Your task to perform on an android device: Open internet settings Image 0: 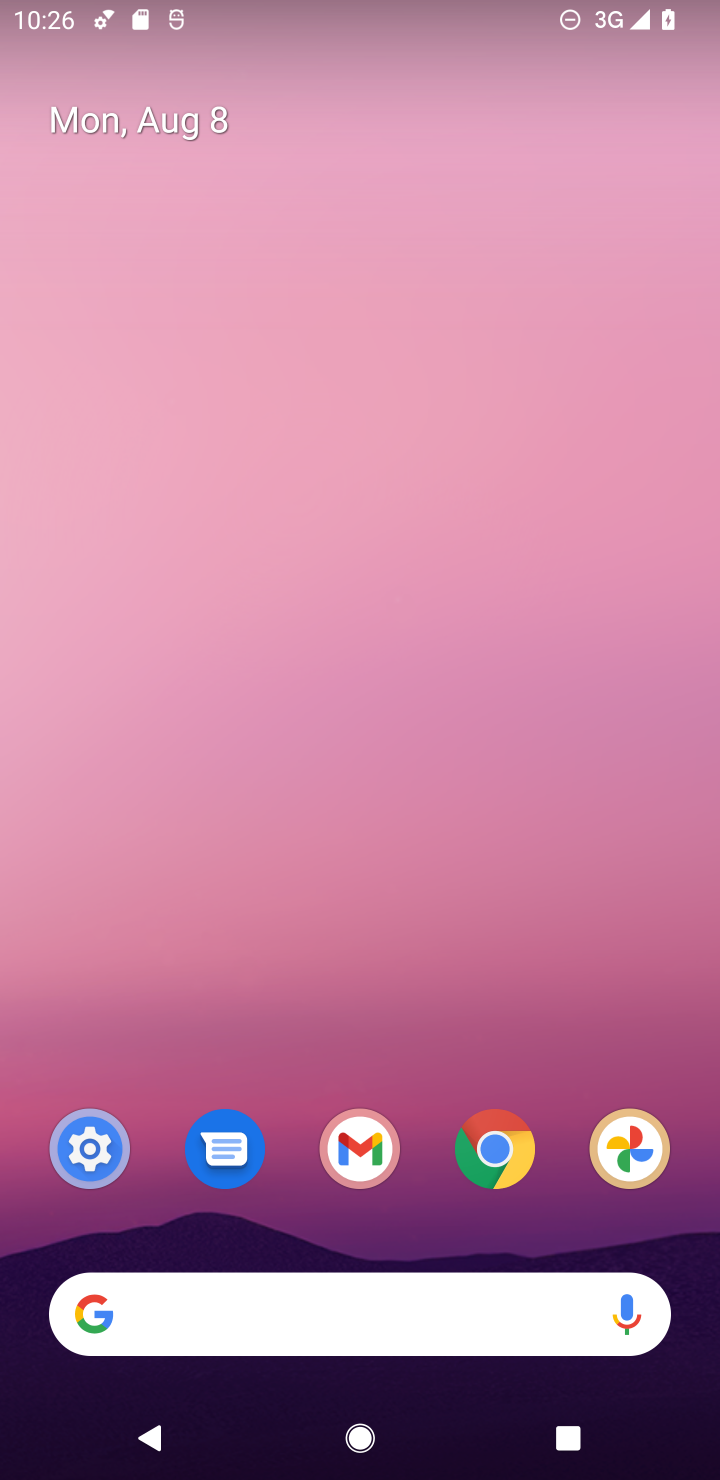
Step 0: drag from (339, 1277) to (323, 623)
Your task to perform on an android device: Open internet settings Image 1: 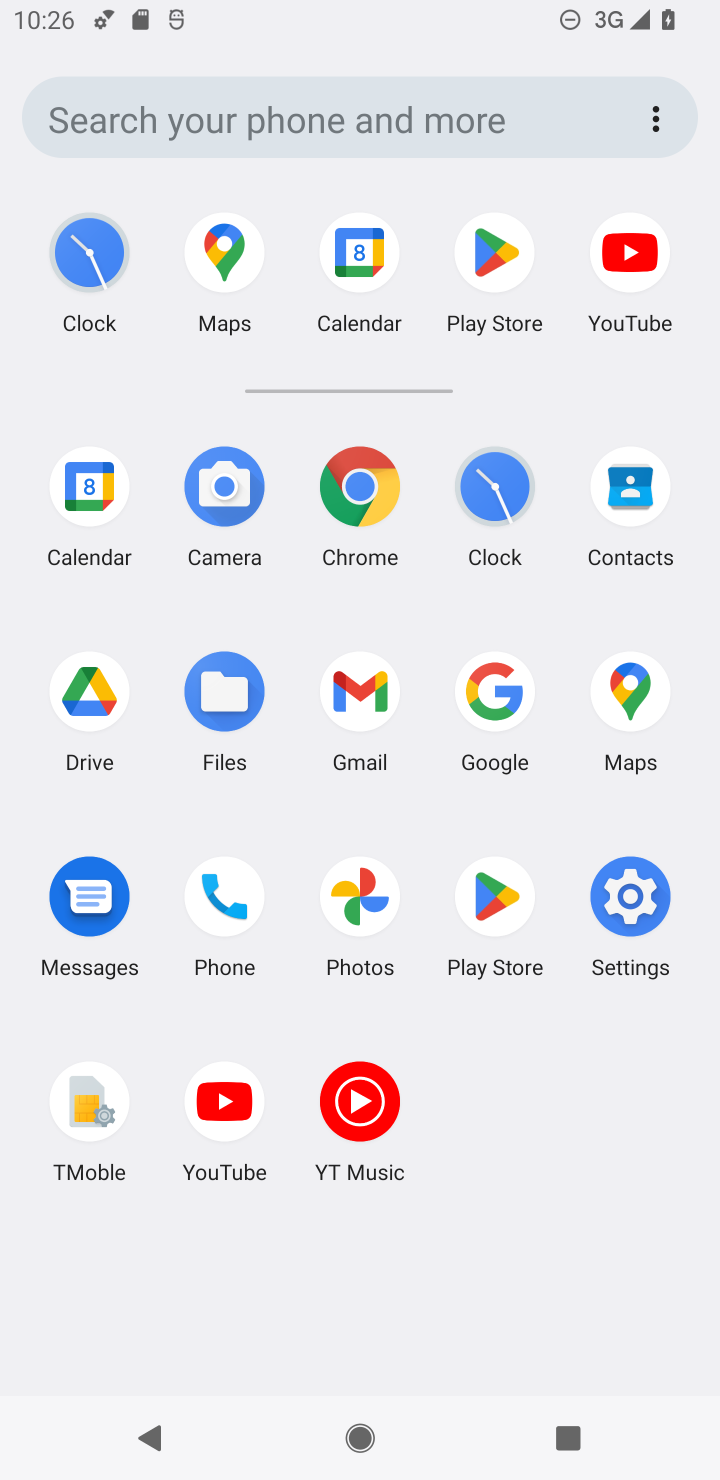
Step 1: click (660, 916)
Your task to perform on an android device: Open internet settings Image 2: 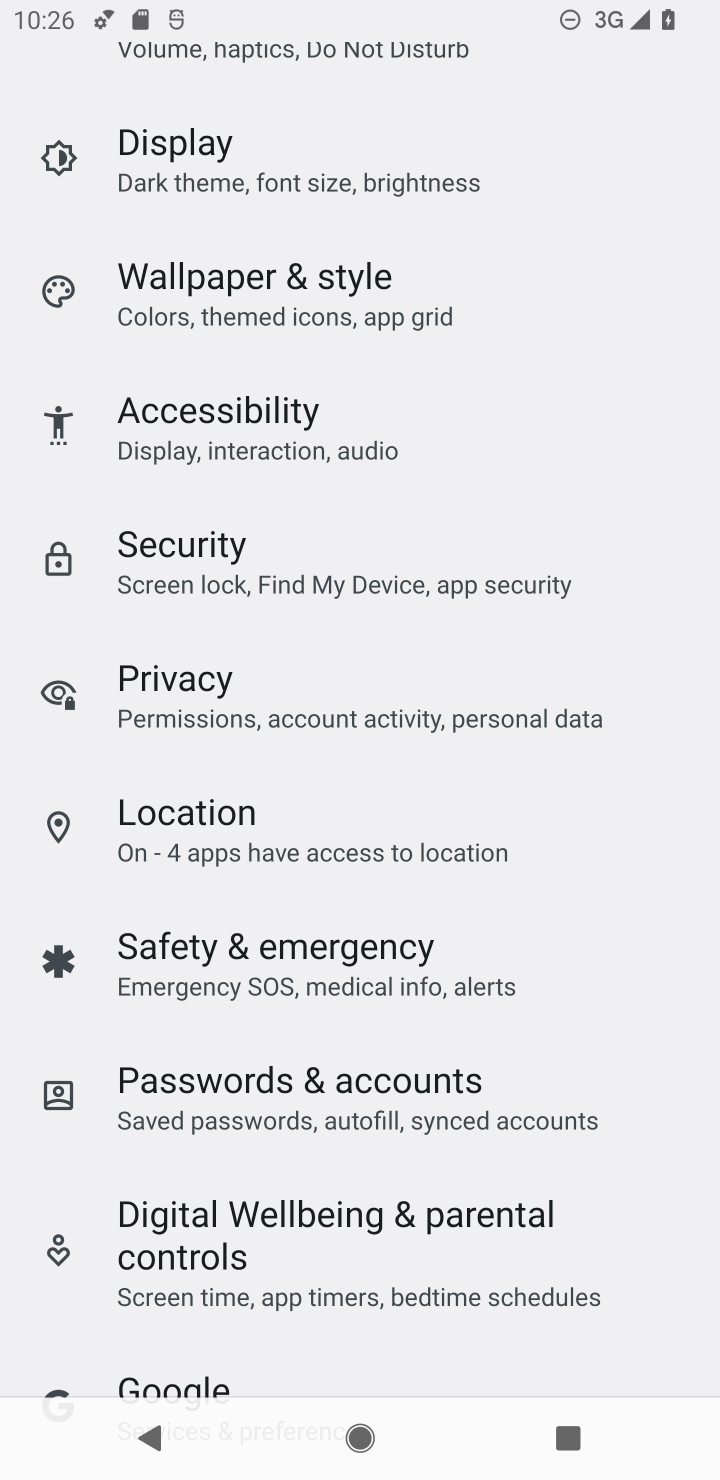
Step 2: drag from (210, 247) to (335, 1064)
Your task to perform on an android device: Open internet settings Image 3: 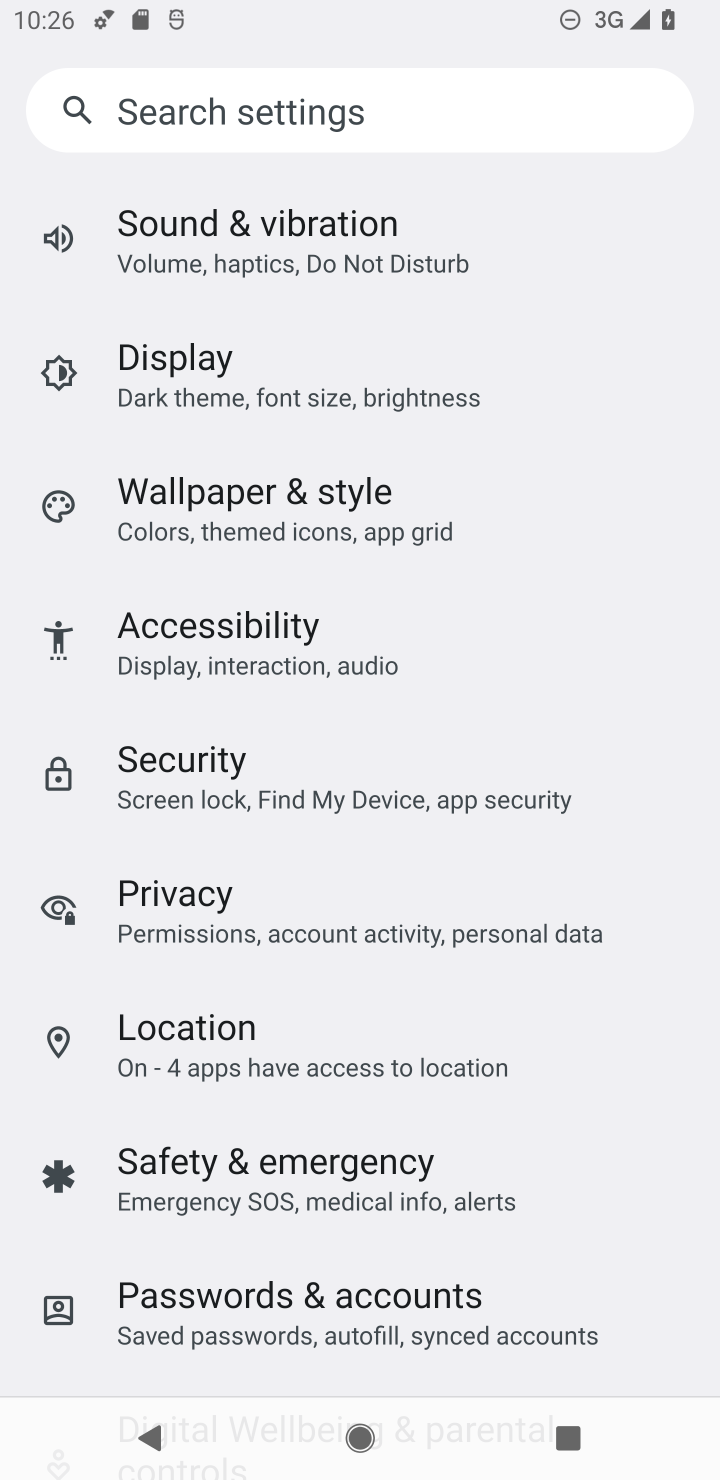
Step 3: click (278, 948)
Your task to perform on an android device: Open internet settings Image 4: 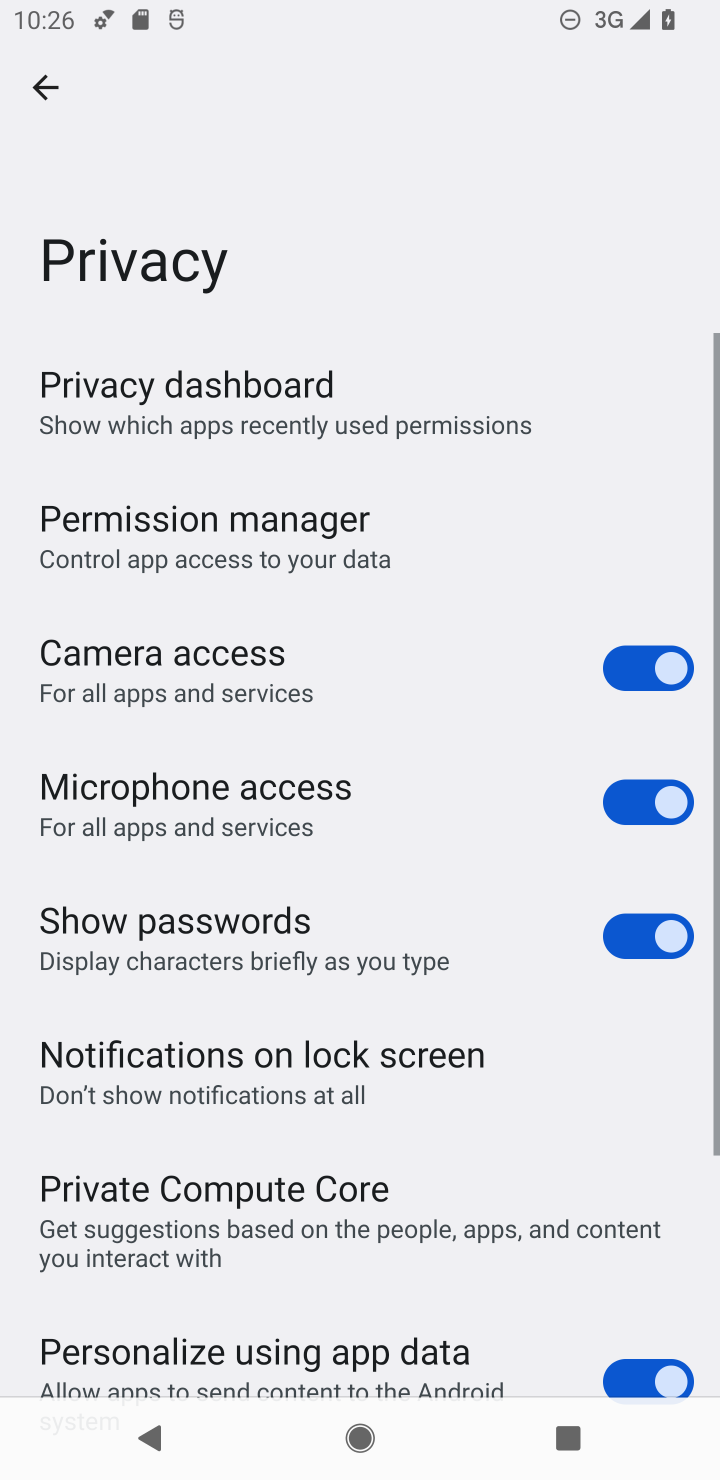
Step 4: drag from (228, 218) to (343, 1003)
Your task to perform on an android device: Open internet settings Image 5: 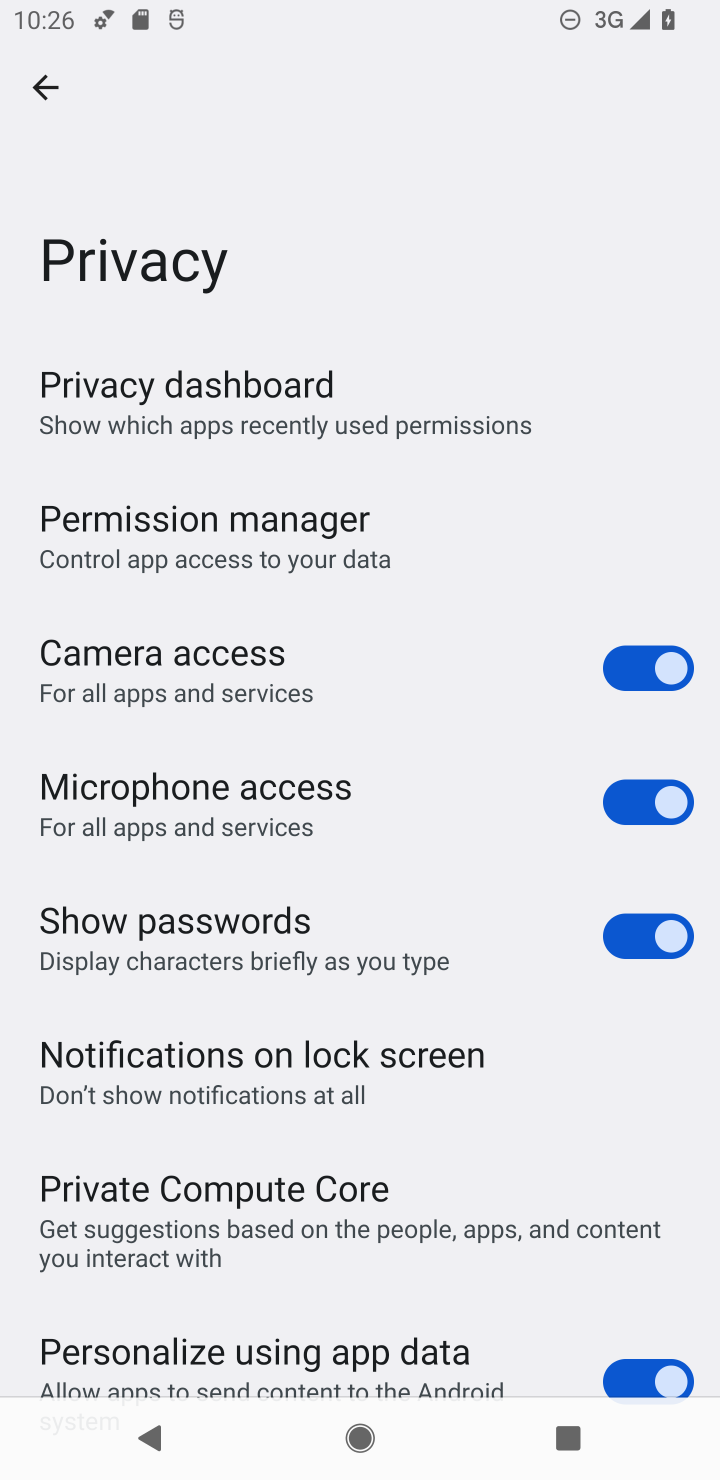
Step 5: click (25, 74)
Your task to perform on an android device: Open internet settings Image 6: 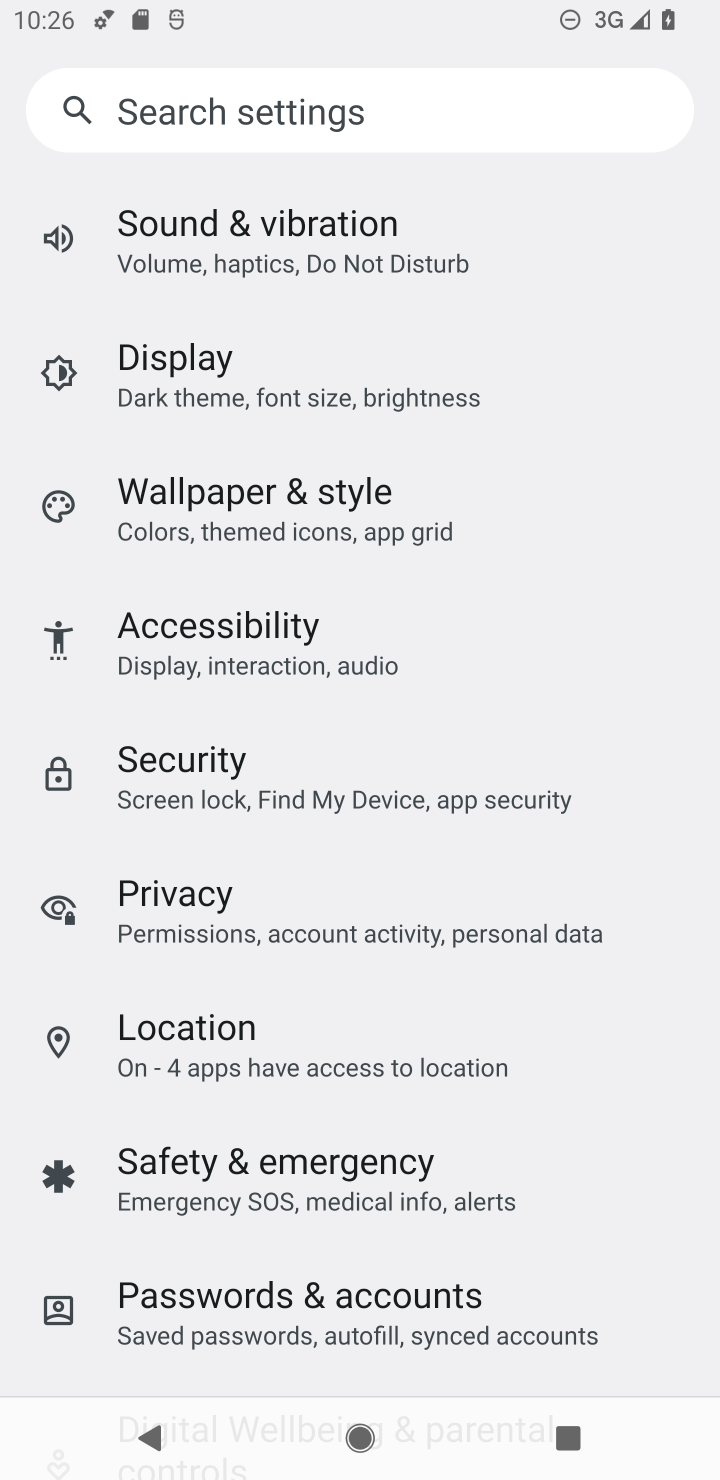
Step 6: drag from (216, 197) to (366, 857)
Your task to perform on an android device: Open internet settings Image 7: 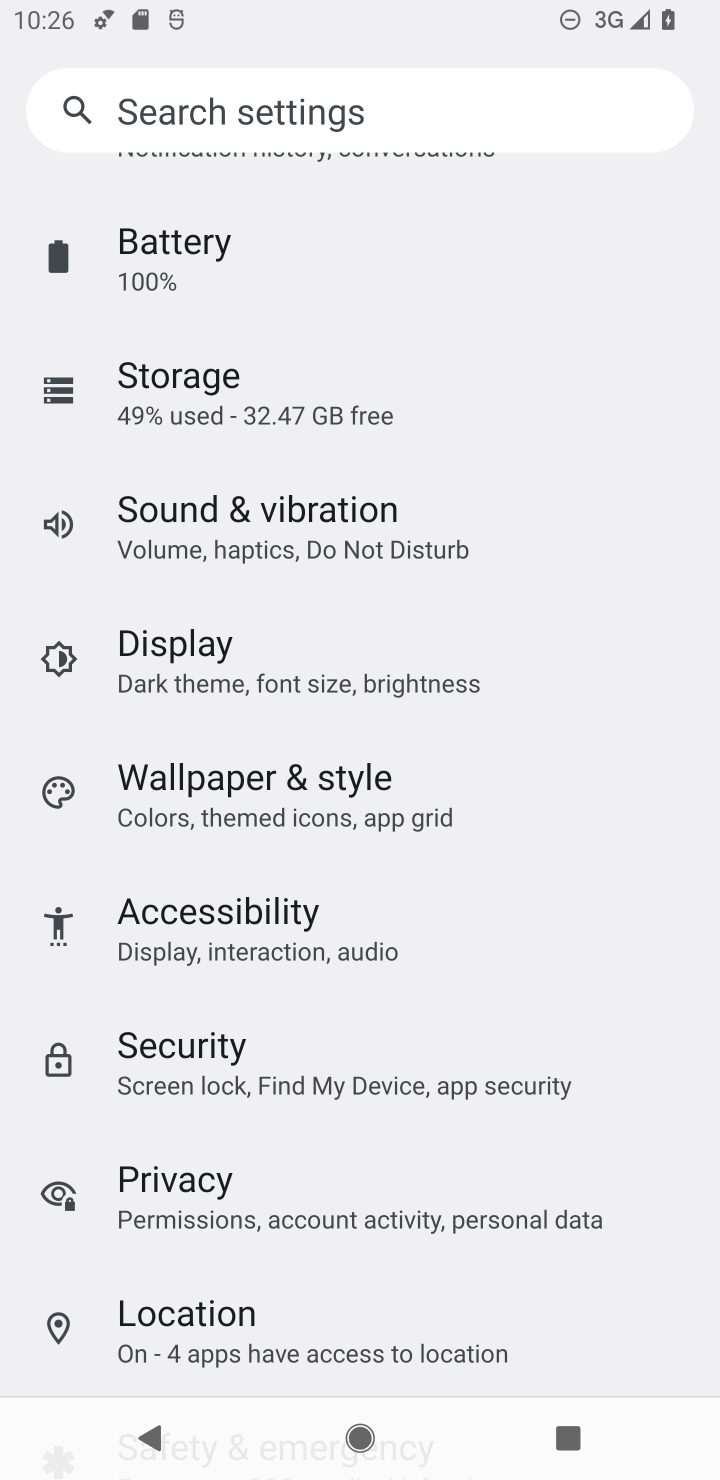
Step 7: drag from (151, 276) to (278, 953)
Your task to perform on an android device: Open internet settings Image 8: 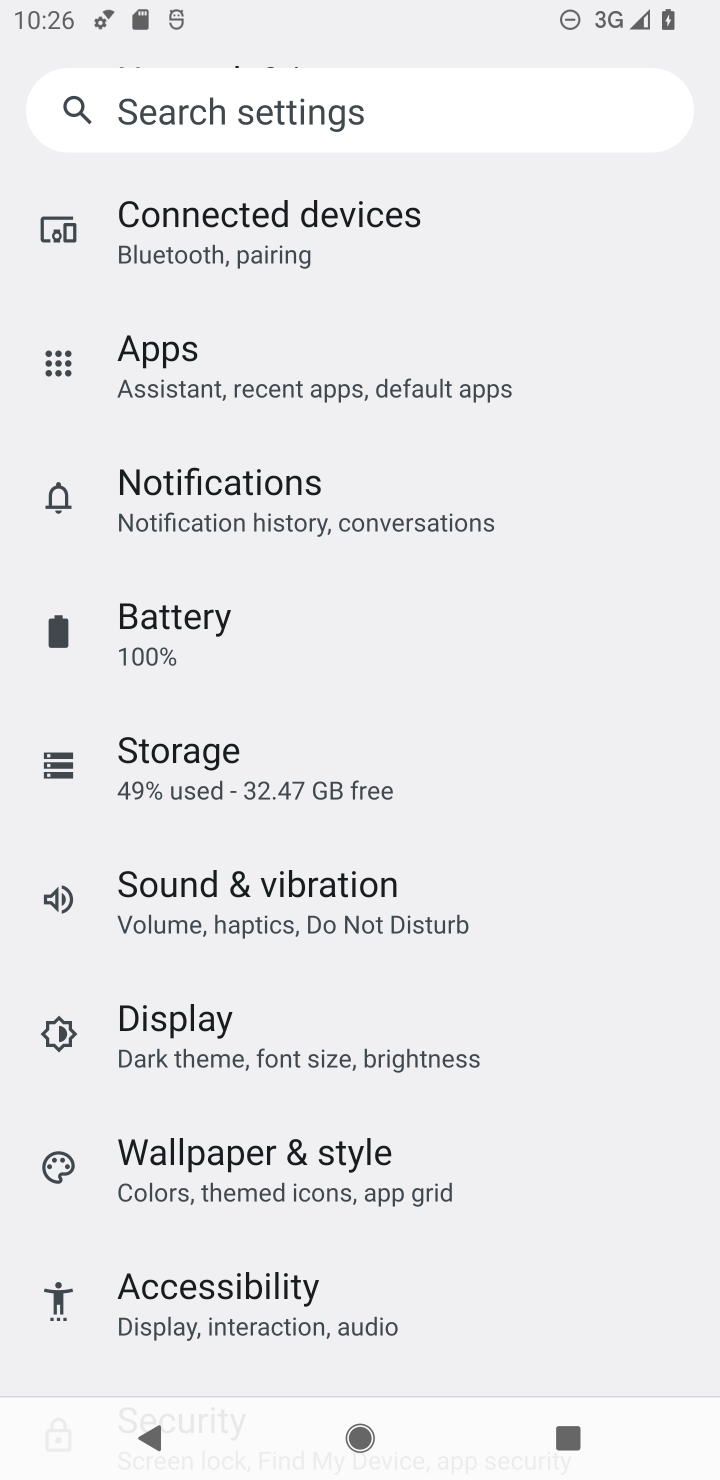
Step 8: drag from (184, 180) to (336, 1112)
Your task to perform on an android device: Open internet settings Image 9: 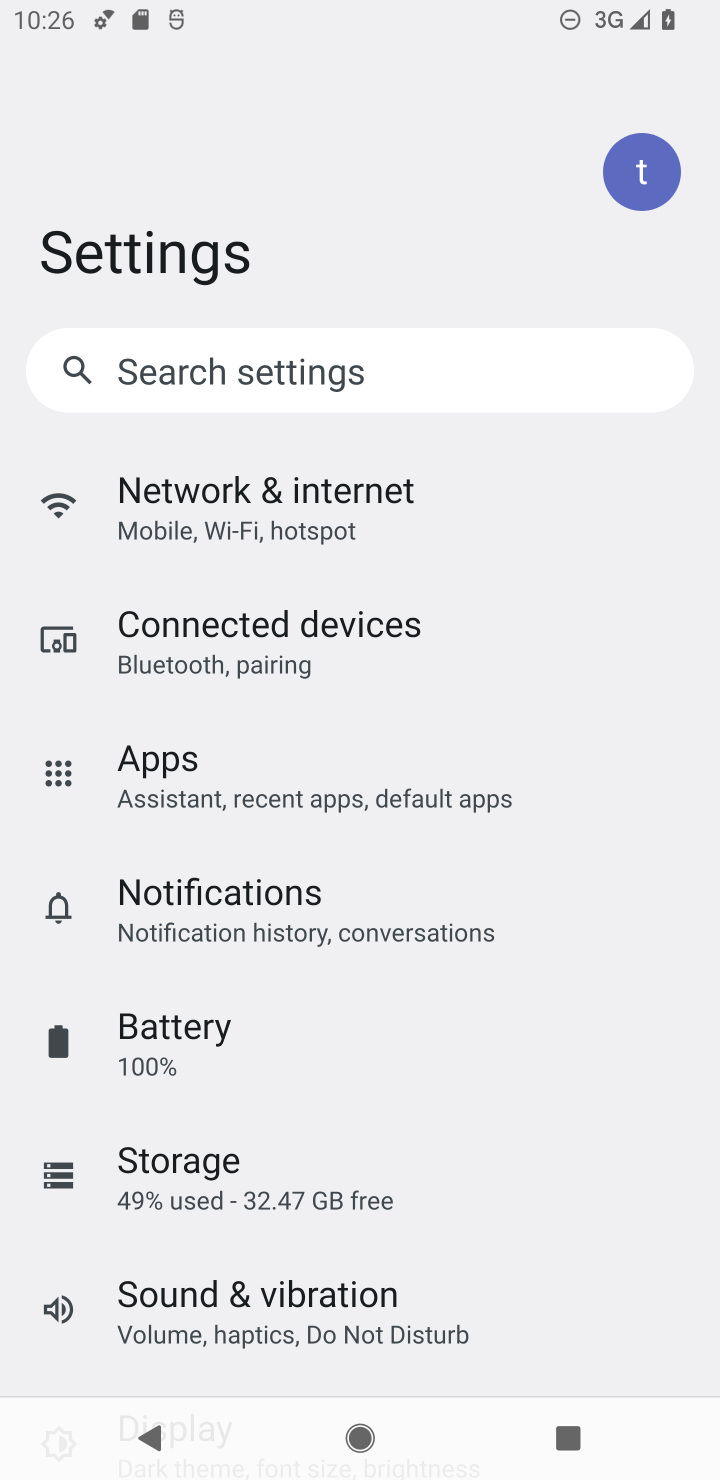
Step 9: click (257, 523)
Your task to perform on an android device: Open internet settings Image 10: 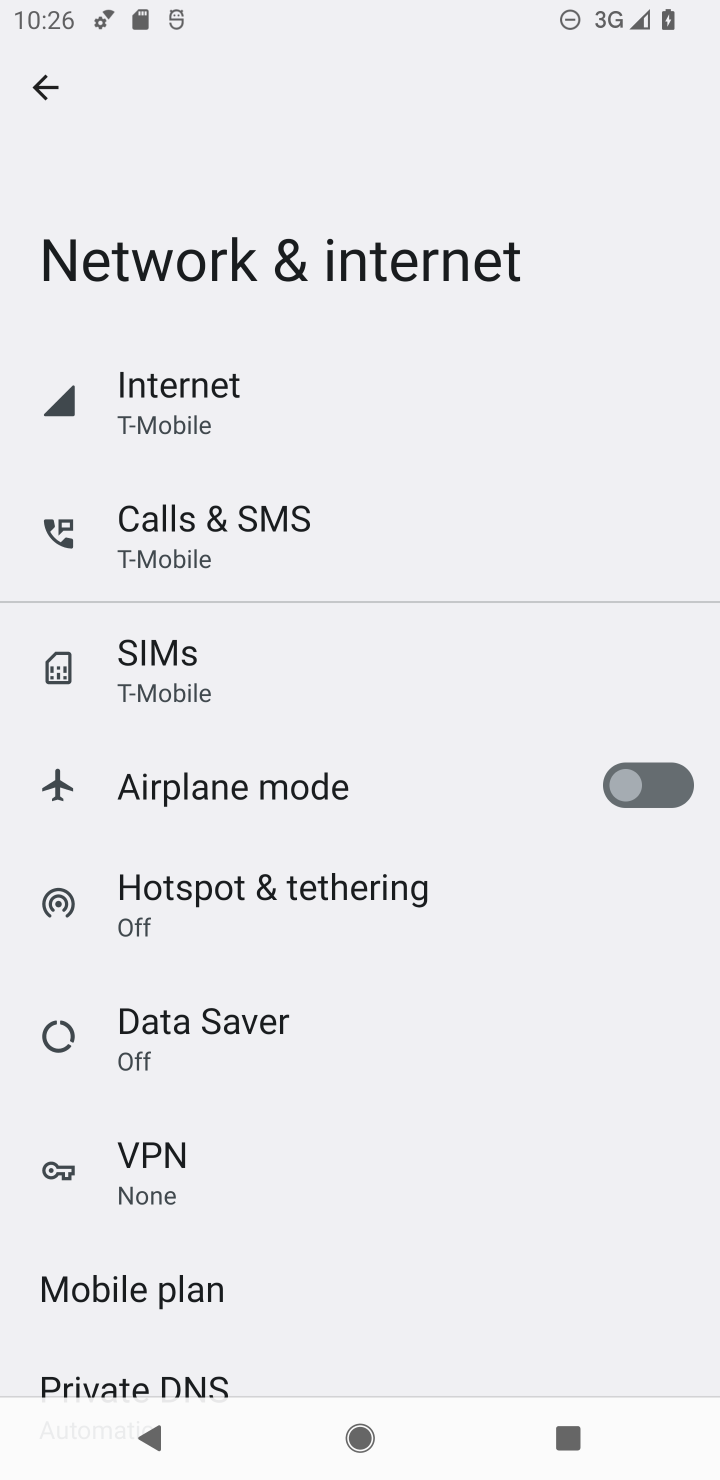
Step 10: click (151, 410)
Your task to perform on an android device: Open internet settings Image 11: 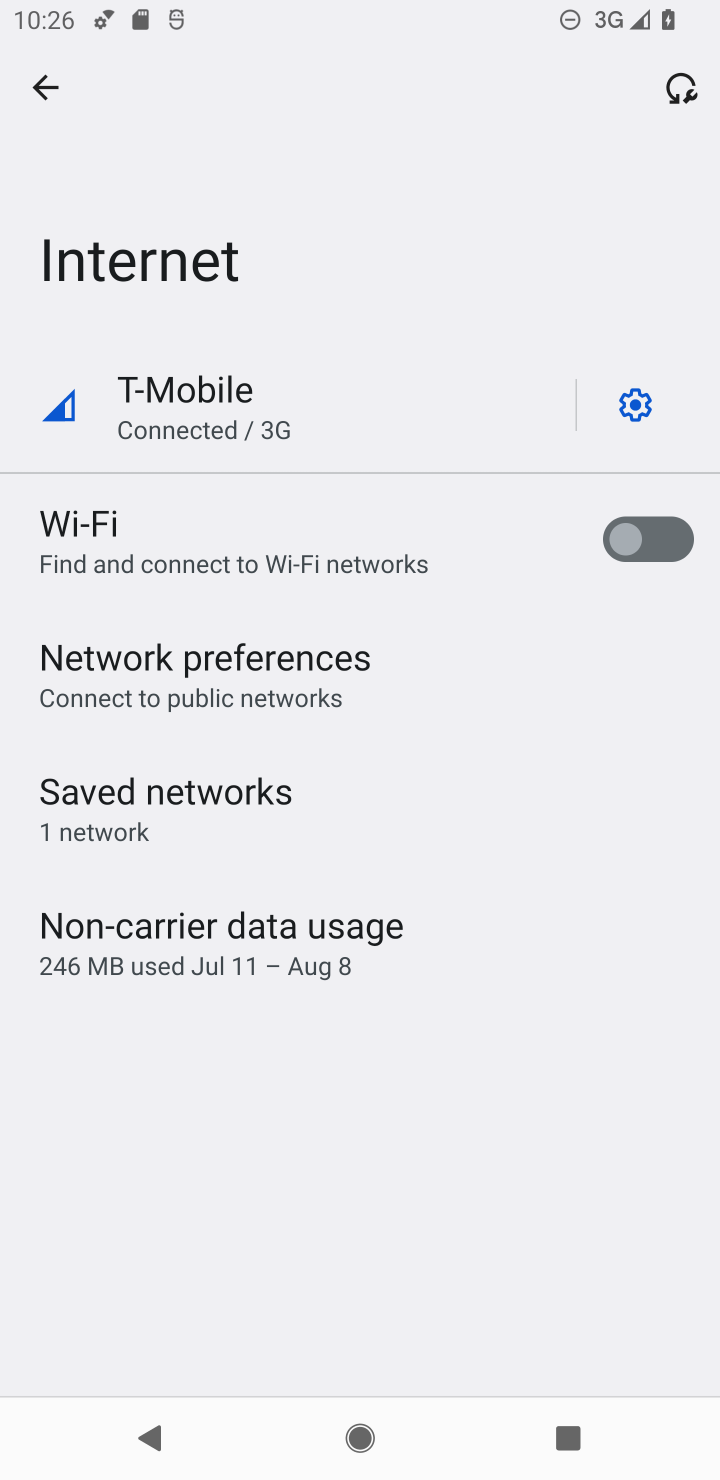
Step 11: task complete